Your task to perform on an android device: toggle wifi Image 0: 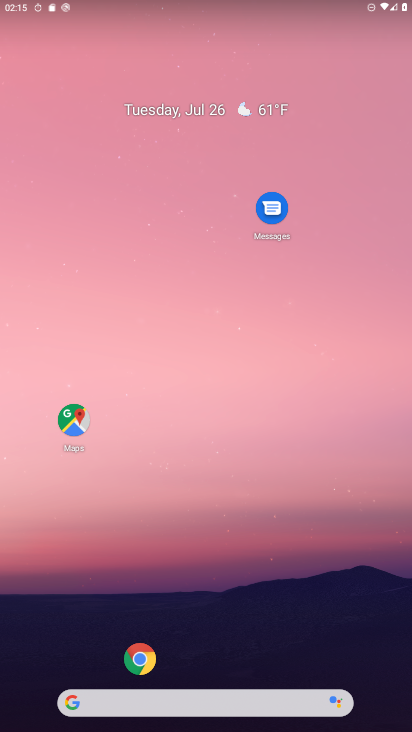
Step 0: drag from (55, 660) to (223, 170)
Your task to perform on an android device: toggle wifi Image 1: 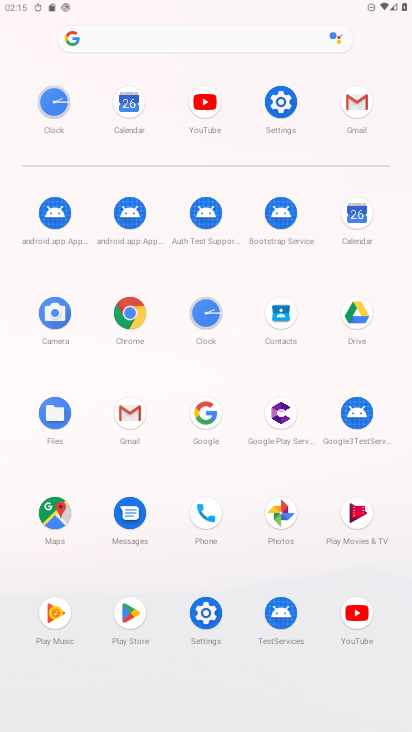
Step 1: click (200, 620)
Your task to perform on an android device: toggle wifi Image 2: 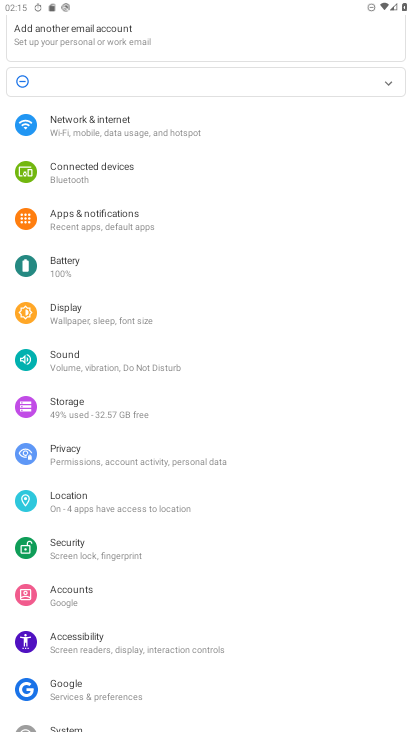
Step 2: click (71, 127)
Your task to perform on an android device: toggle wifi Image 3: 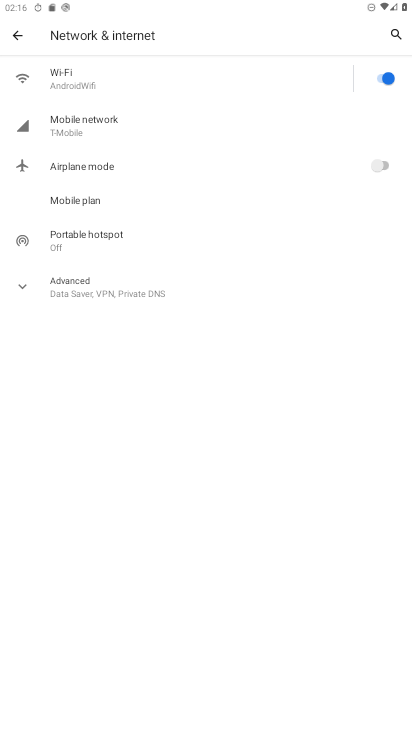
Step 3: task complete